Your task to perform on an android device: turn off notifications in google photos Image 0: 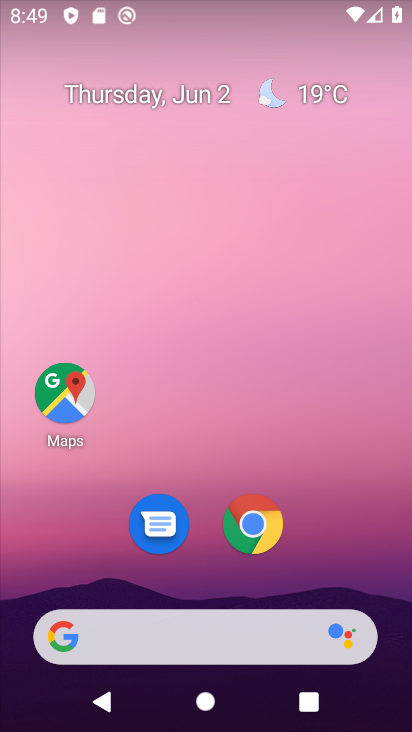
Step 0: drag from (334, 519) to (266, 1)
Your task to perform on an android device: turn off notifications in google photos Image 1: 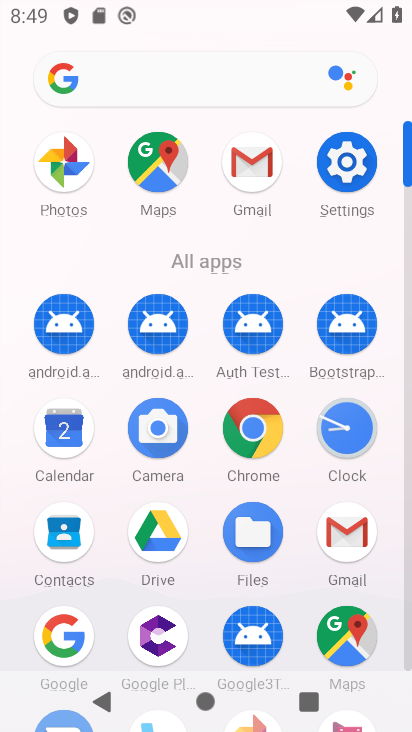
Step 1: click (334, 156)
Your task to perform on an android device: turn off notifications in google photos Image 2: 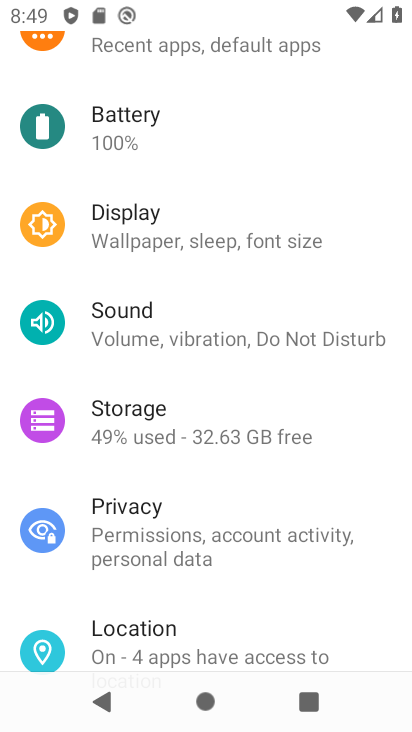
Step 2: drag from (304, 303) to (268, 584)
Your task to perform on an android device: turn off notifications in google photos Image 3: 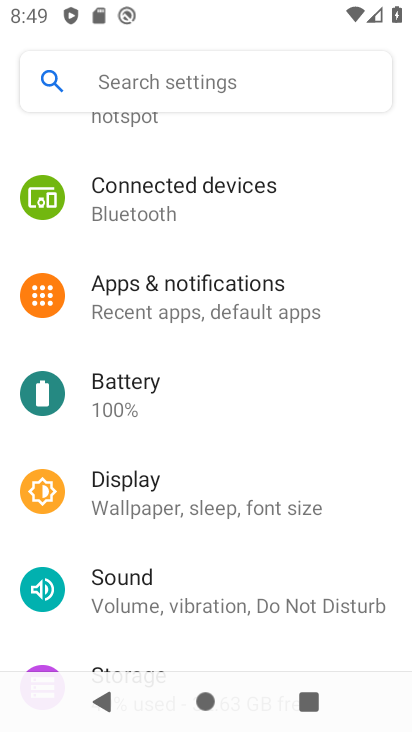
Step 3: click (258, 295)
Your task to perform on an android device: turn off notifications in google photos Image 4: 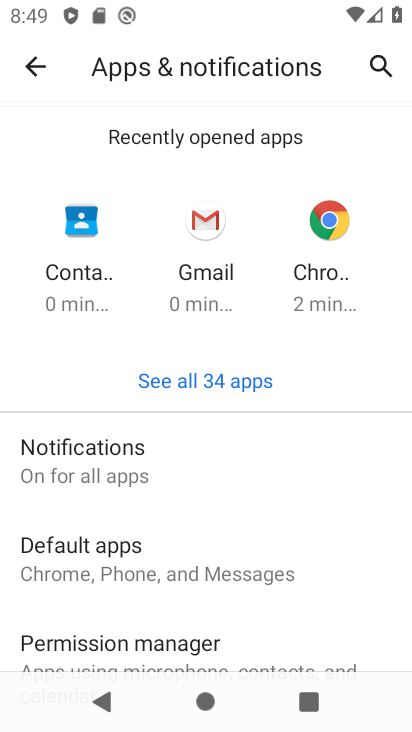
Step 4: click (232, 374)
Your task to perform on an android device: turn off notifications in google photos Image 5: 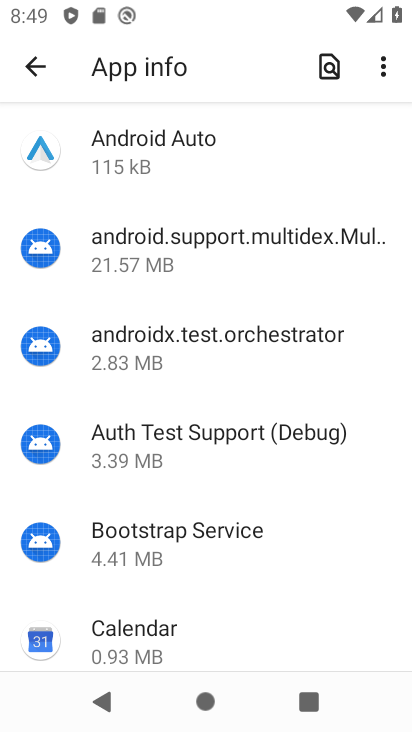
Step 5: drag from (228, 622) to (298, 2)
Your task to perform on an android device: turn off notifications in google photos Image 6: 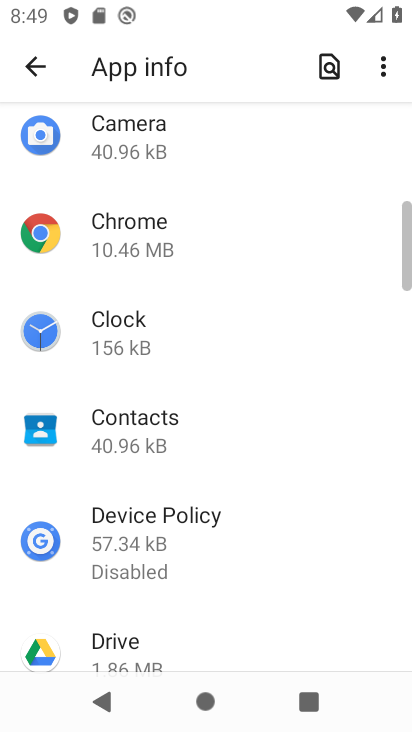
Step 6: drag from (226, 623) to (233, 8)
Your task to perform on an android device: turn off notifications in google photos Image 7: 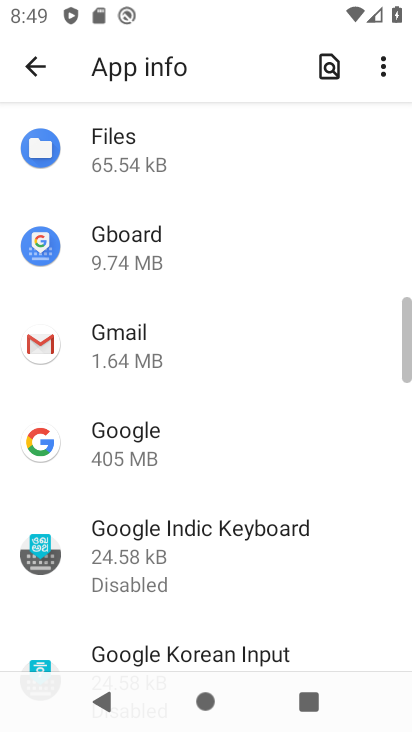
Step 7: drag from (221, 580) to (218, 162)
Your task to perform on an android device: turn off notifications in google photos Image 8: 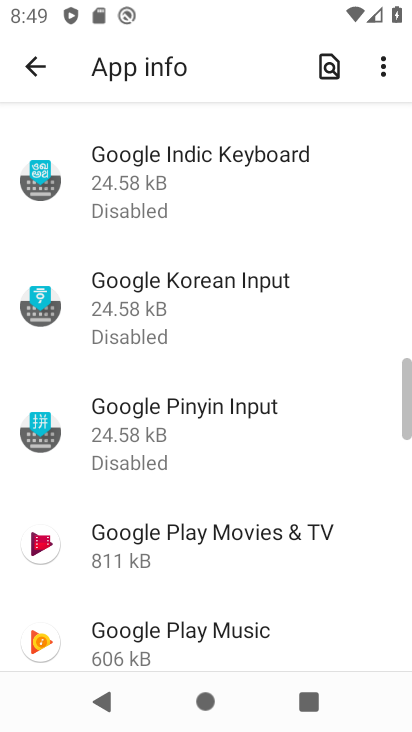
Step 8: drag from (174, 588) to (200, 296)
Your task to perform on an android device: turn off notifications in google photos Image 9: 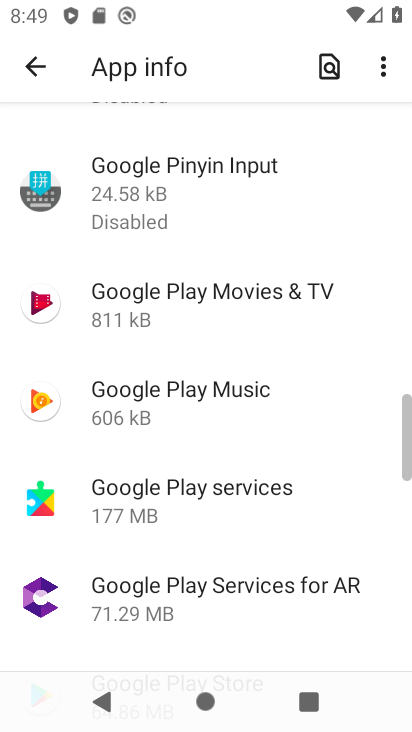
Step 9: drag from (244, 633) to (273, 247)
Your task to perform on an android device: turn off notifications in google photos Image 10: 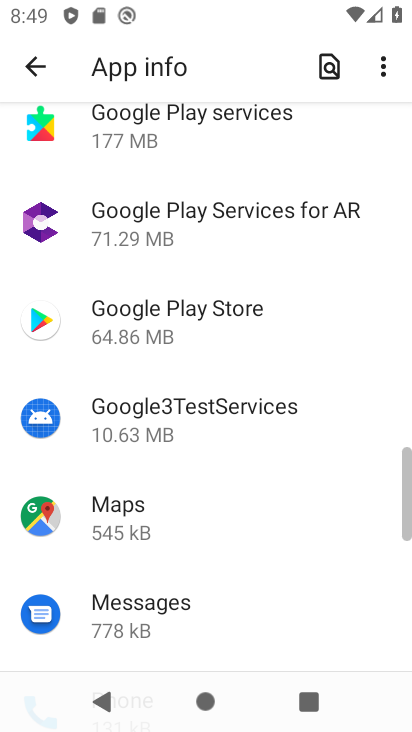
Step 10: drag from (276, 568) to (270, 269)
Your task to perform on an android device: turn off notifications in google photos Image 11: 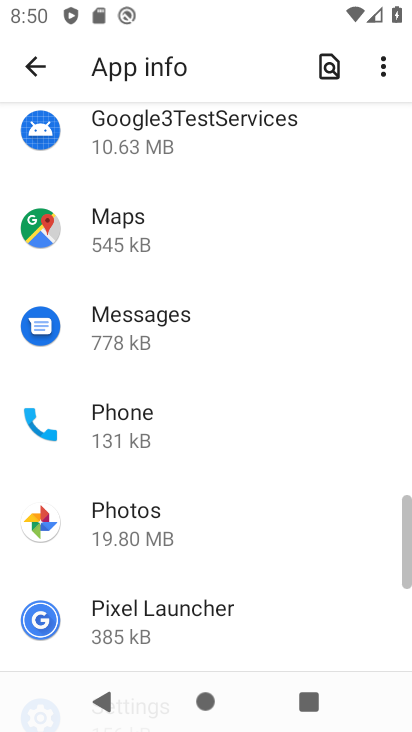
Step 11: click (212, 525)
Your task to perform on an android device: turn off notifications in google photos Image 12: 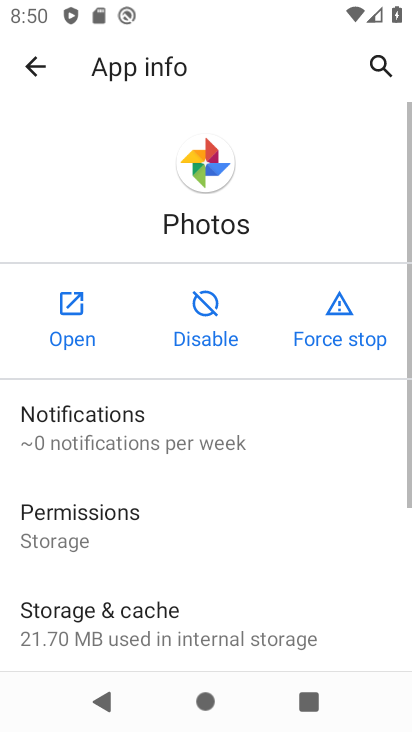
Step 12: click (138, 431)
Your task to perform on an android device: turn off notifications in google photos Image 13: 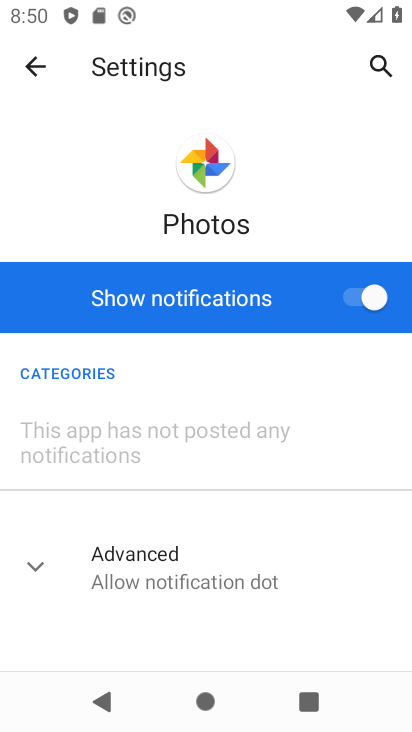
Step 13: click (355, 291)
Your task to perform on an android device: turn off notifications in google photos Image 14: 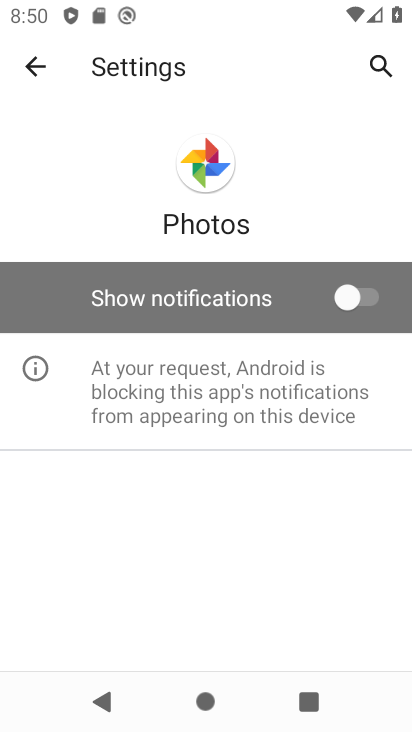
Step 14: task complete